Your task to perform on an android device: Clear the shopping cart on target. Image 0: 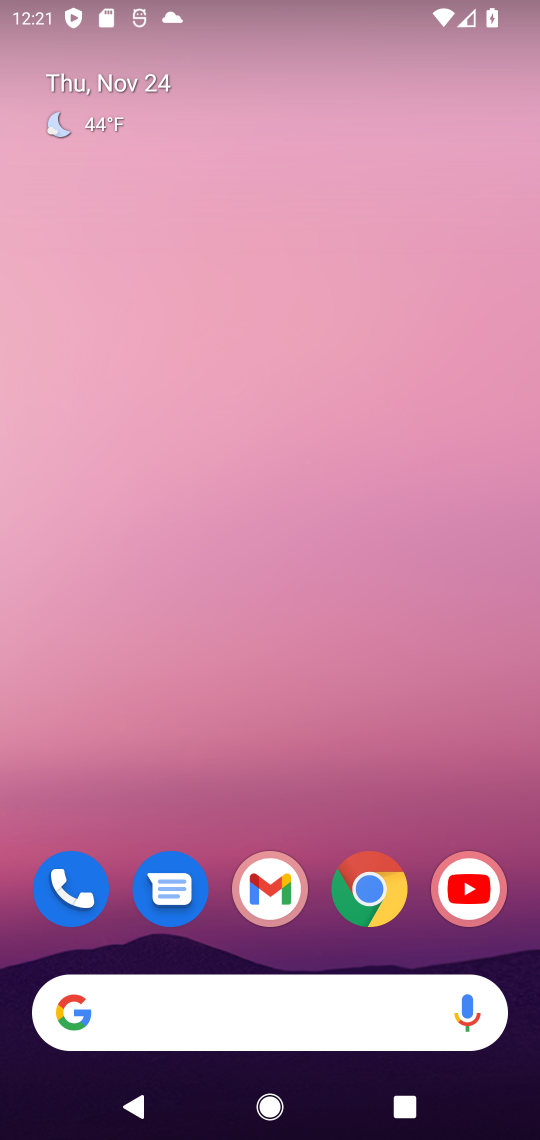
Step 0: click (375, 913)
Your task to perform on an android device: Clear the shopping cart on target. Image 1: 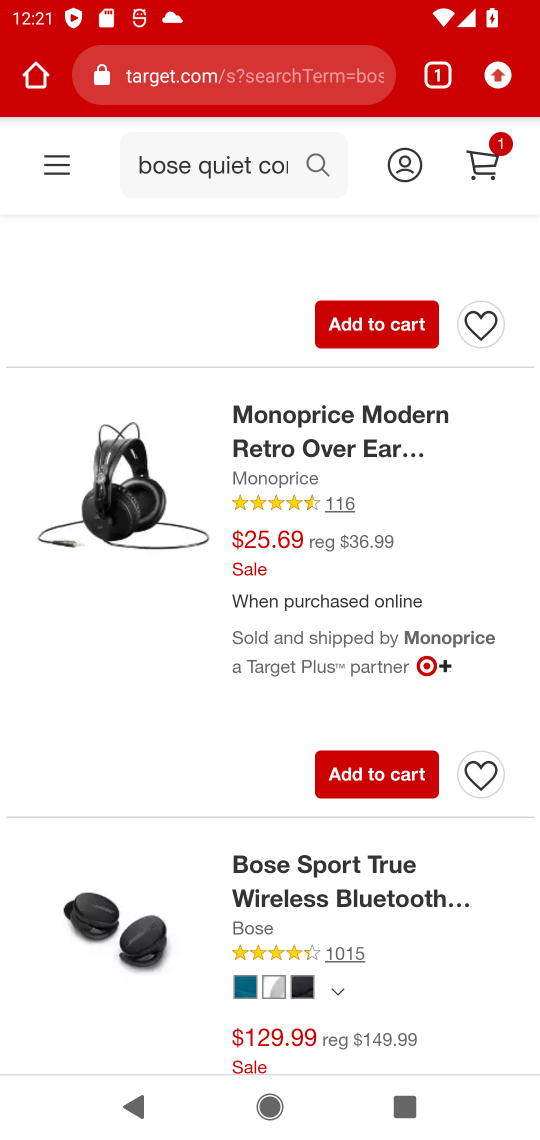
Step 1: click (220, 84)
Your task to perform on an android device: Clear the shopping cart on target. Image 2: 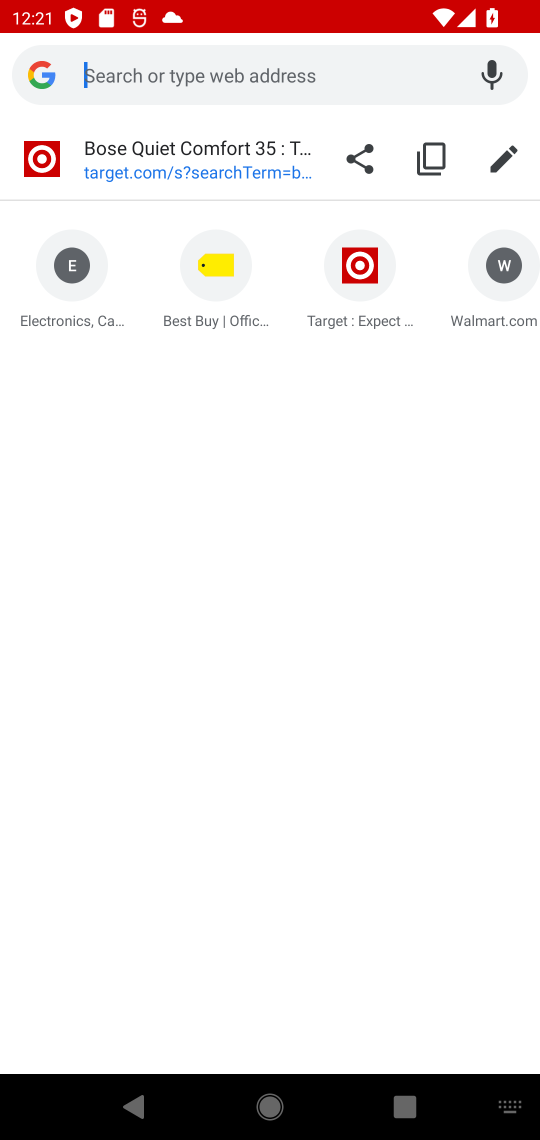
Step 2: click (356, 260)
Your task to perform on an android device: Clear the shopping cart on target. Image 3: 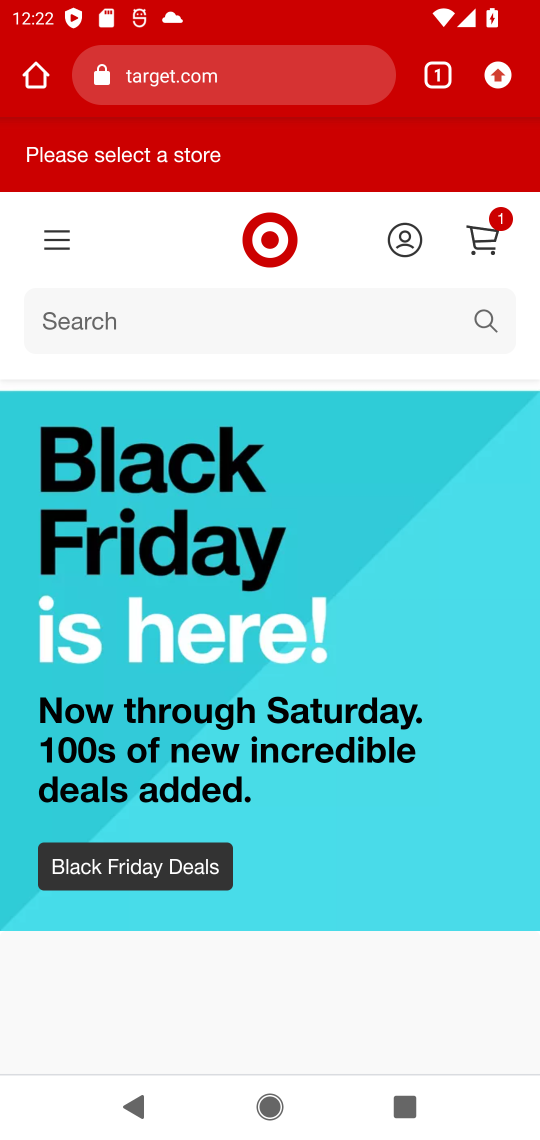
Step 3: click (482, 238)
Your task to perform on an android device: Clear the shopping cart on target. Image 4: 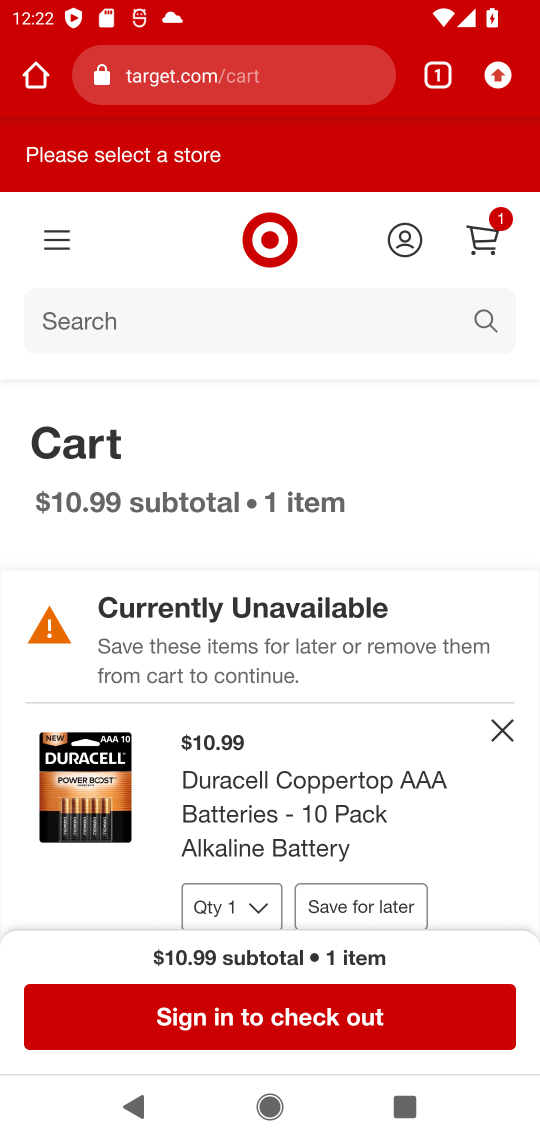
Step 4: click (504, 731)
Your task to perform on an android device: Clear the shopping cart on target. Image 5: 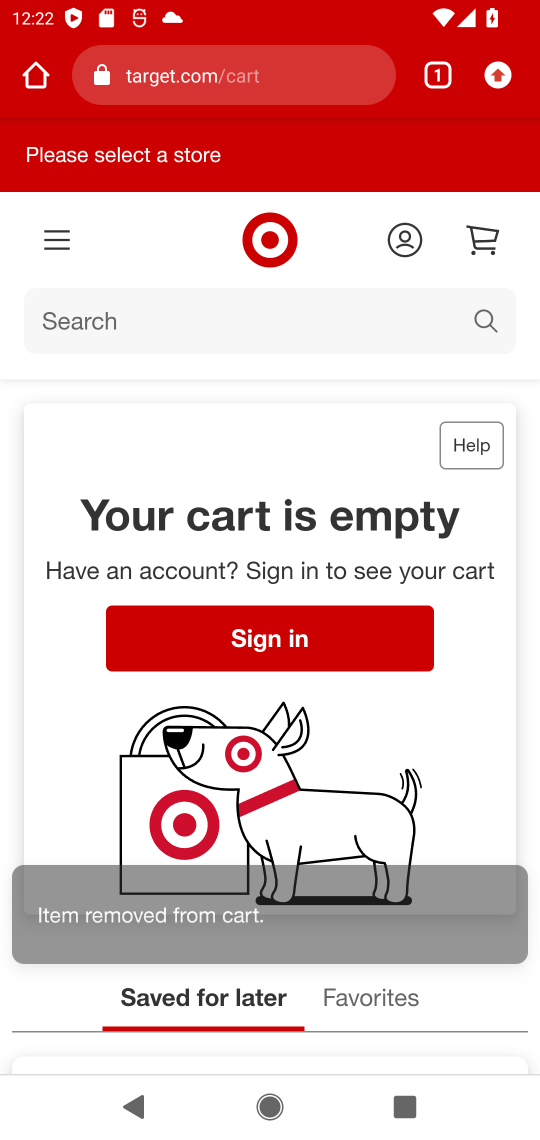
Step 5: task complete